Your task to perform on an android device: open app "Yahoo Mail" (install if not already installed) and enter user name: "lawsuit@inbox.com" and password: "pooch" Image 0: 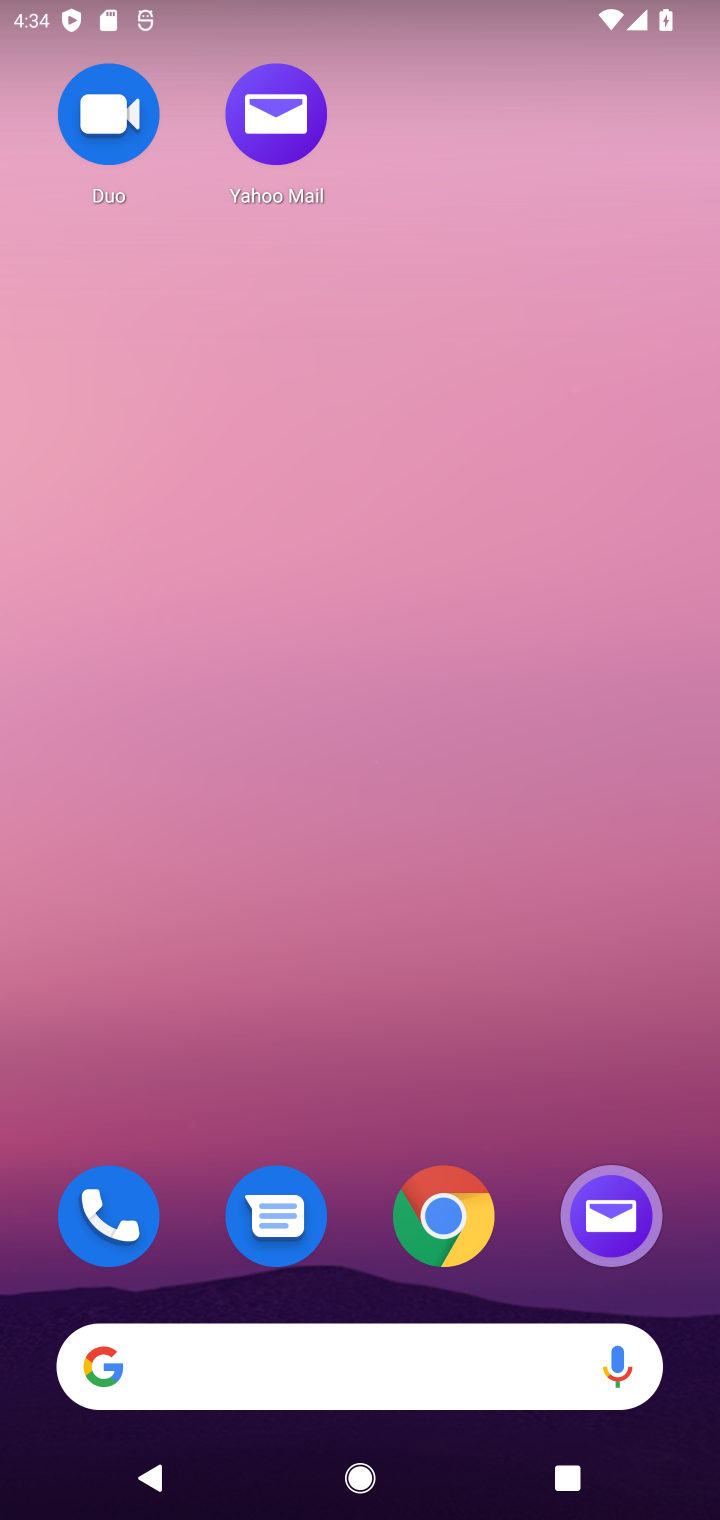
Step 0: drag from (369, 1043) to (475, 227)
Your task to perform on an android device: open app "Yahoo Mail" (install if not already installed) and enter user name: "lawsuit@inbox.com" and password: "pooch" Image 1: 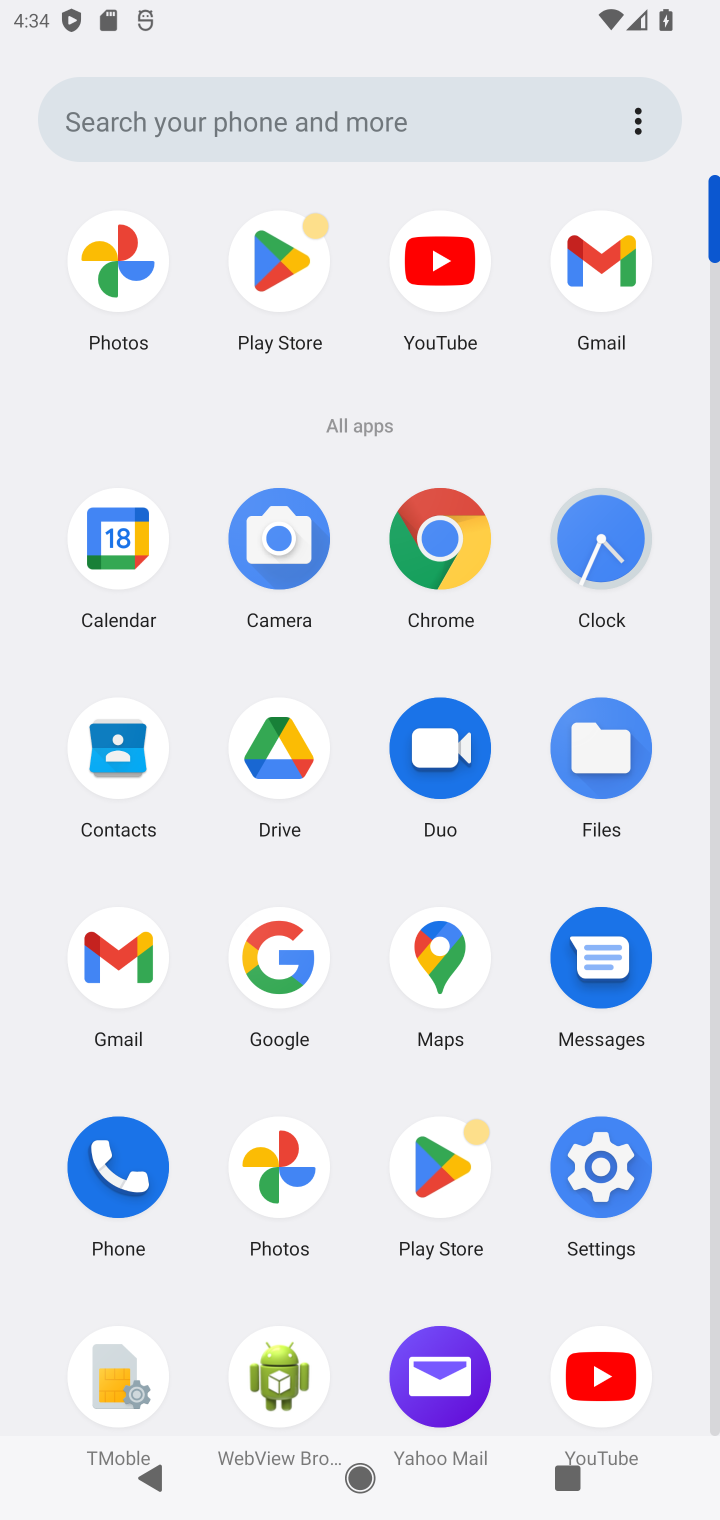
Step 1: click (287, 252)
Your task to perform on an android device: open app "Yahoo Mail" (install if not already installed) and enter user name: "lawsuit@inbox.com" and password: "pooch" Image 2: 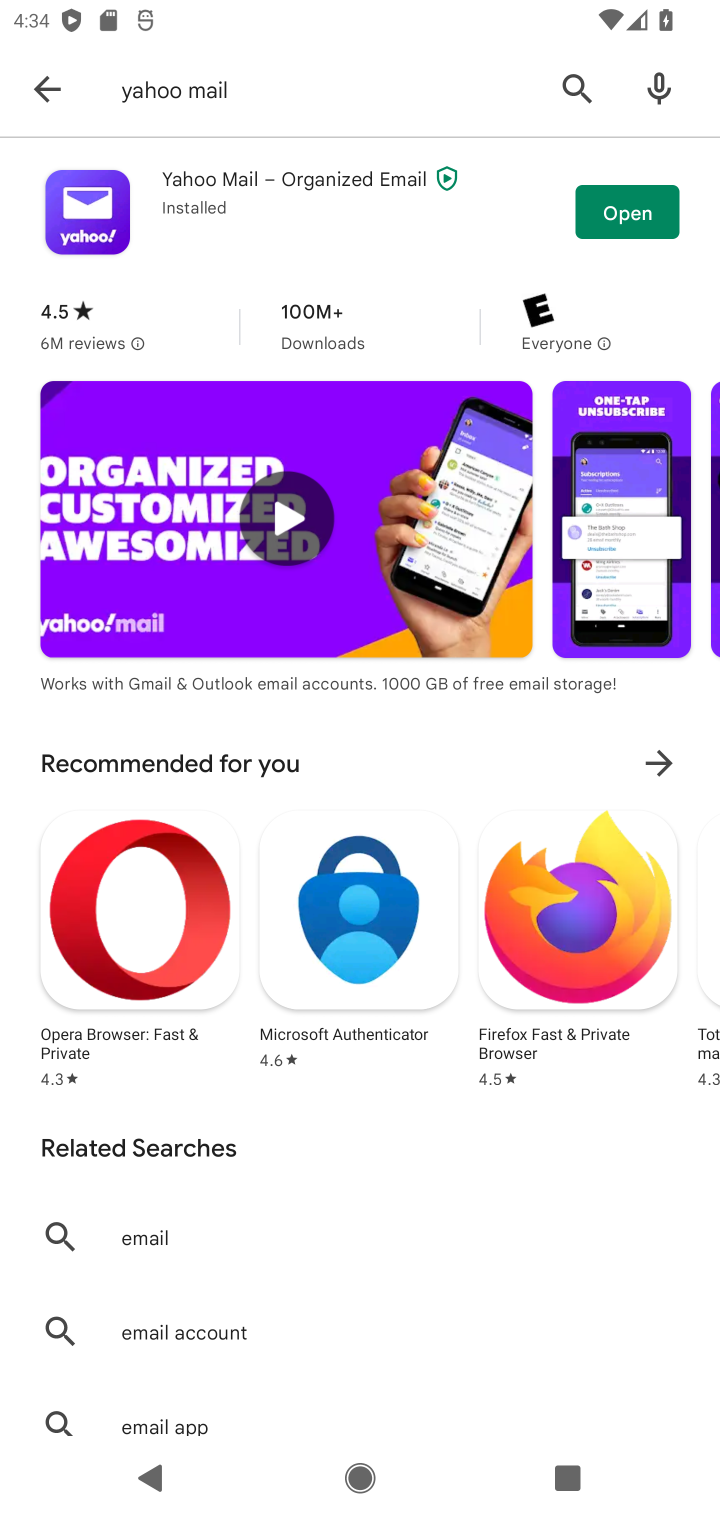
Step 2: click (574, 84)
Your task to perform on an android device: open app "Yahoo Mail" (install if not already installed) and enter user name: "lawsuit@inbox.com" and password: "pooch" Image 3: 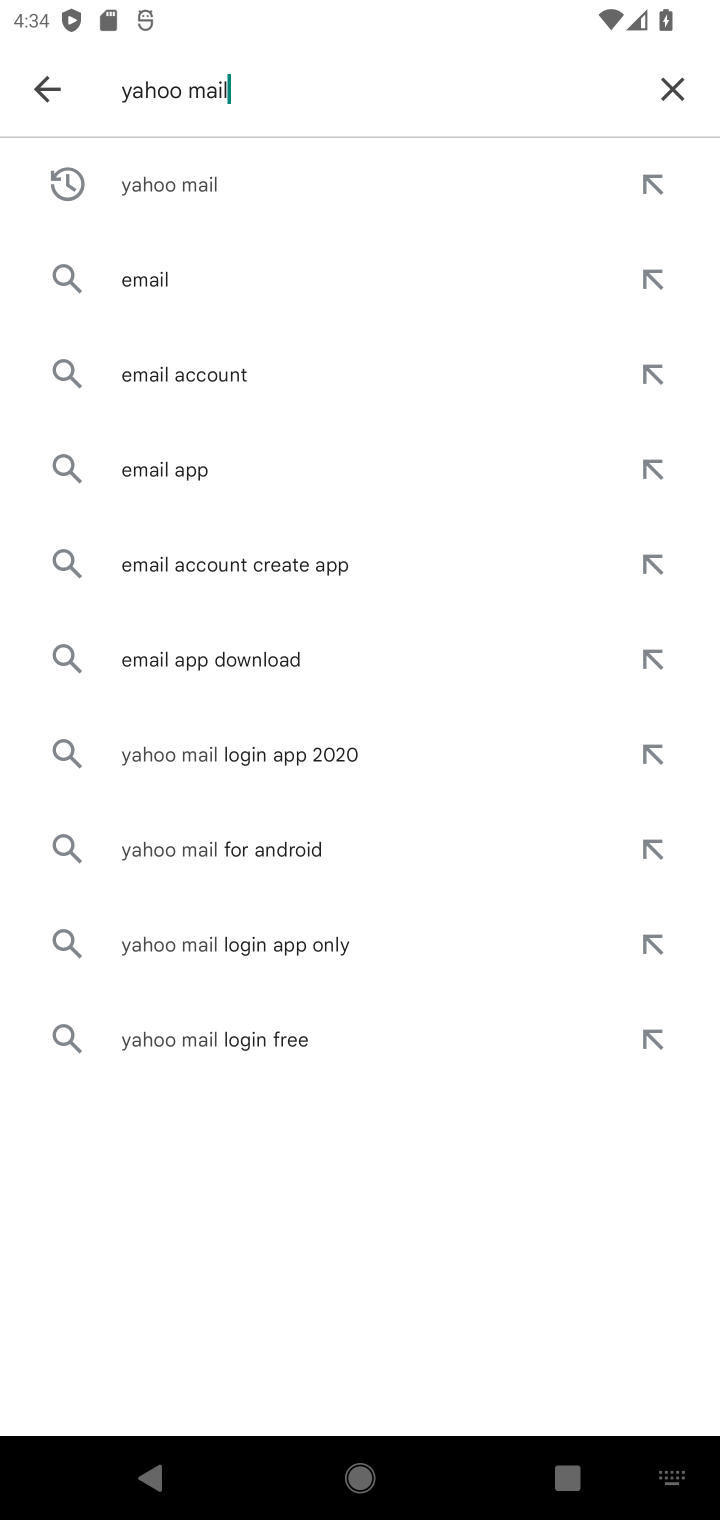
Step 3: click (226, 169)
Your task to perform on an android device: open app "Yahoo Mail" (install if not already installed) and enter user name: "lawsuit@inbox.com" and password: "pooch" Image 4: 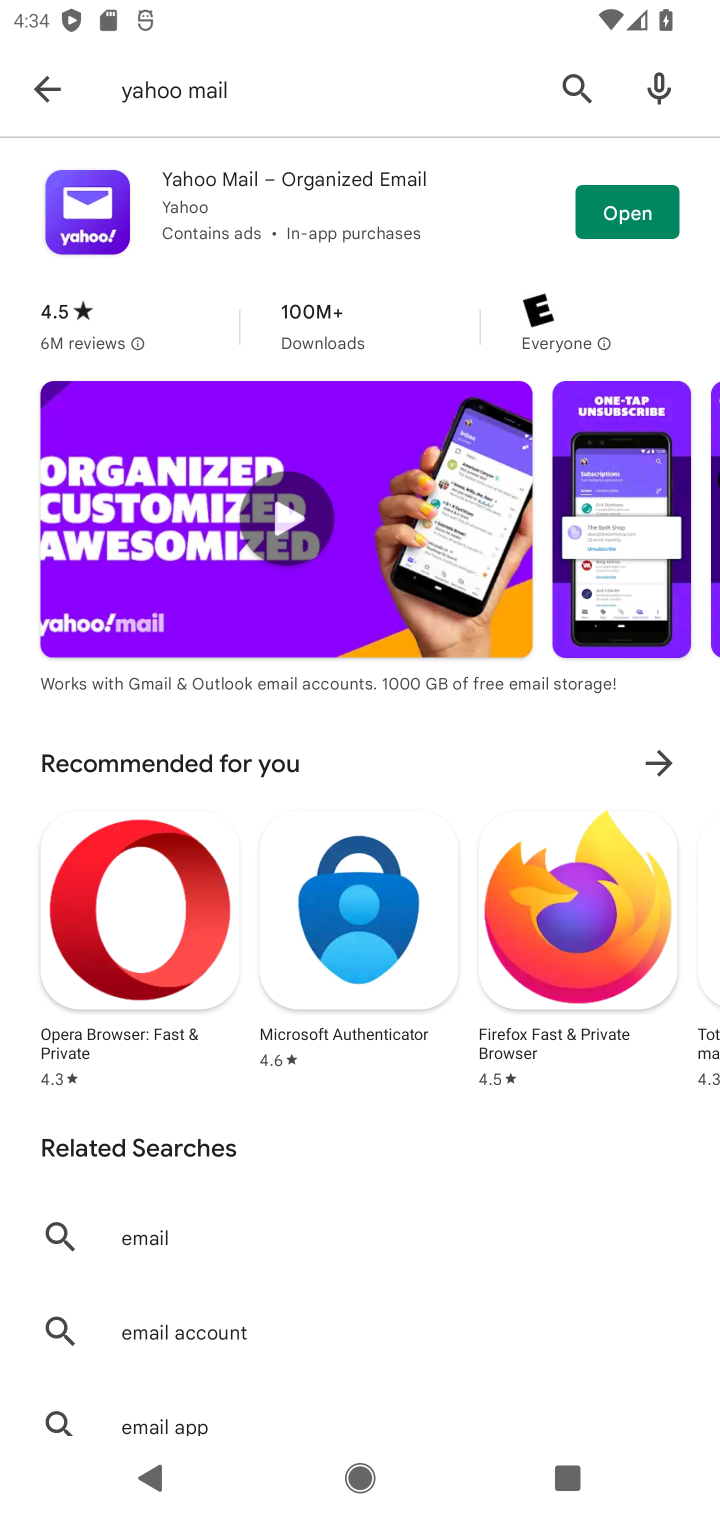
Step 4: click (617, 221)
Your task to perform on an android device: open app "Yahoo Mail" (install if not already installed) and enter user name: "lawsuit@inbox.com" and password: "pooch" Image 5: 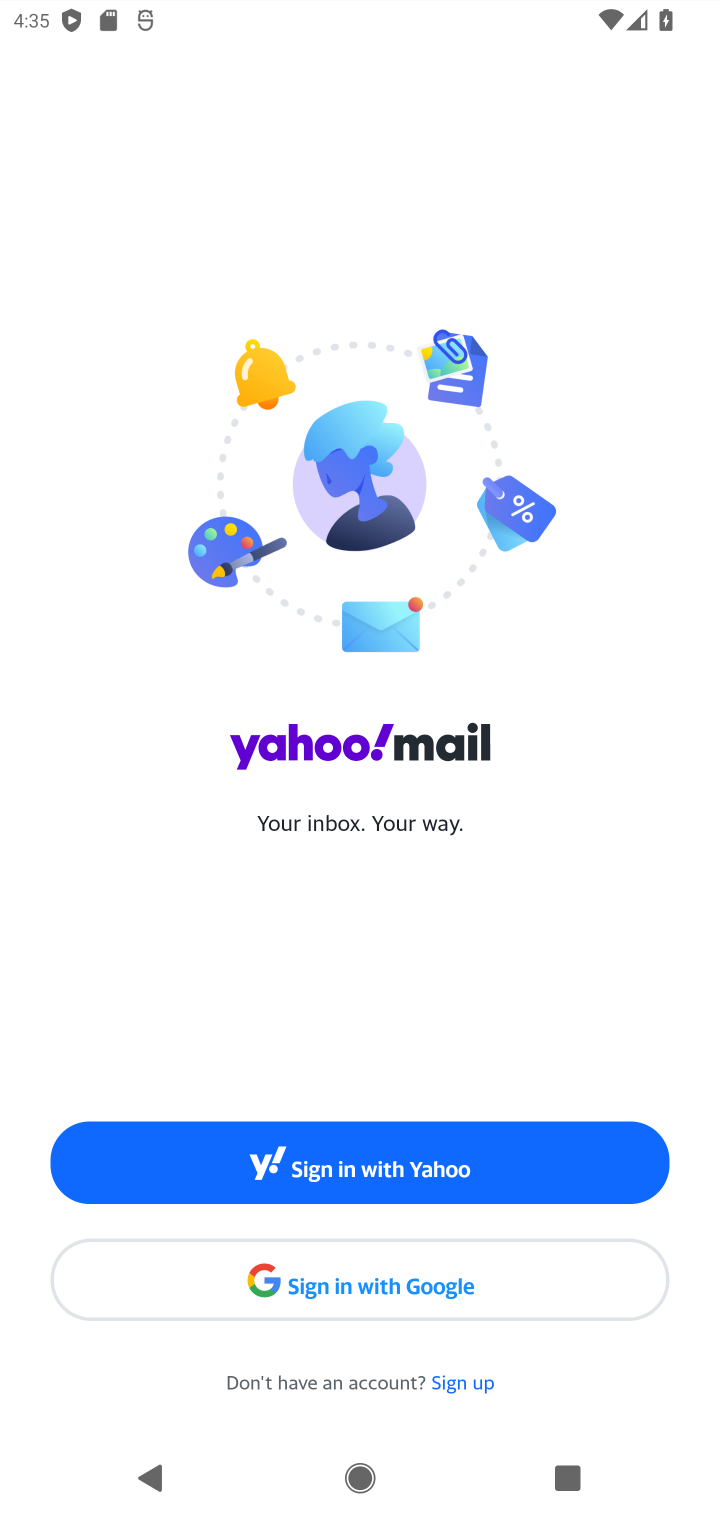
Step 5: click (361, 1173)
Your task to perform on an android device: open app "Yahoo Mail" (install if not already installed) and enter user name: "lawsuit@inbox.com" and password: "pooch" Image 6: 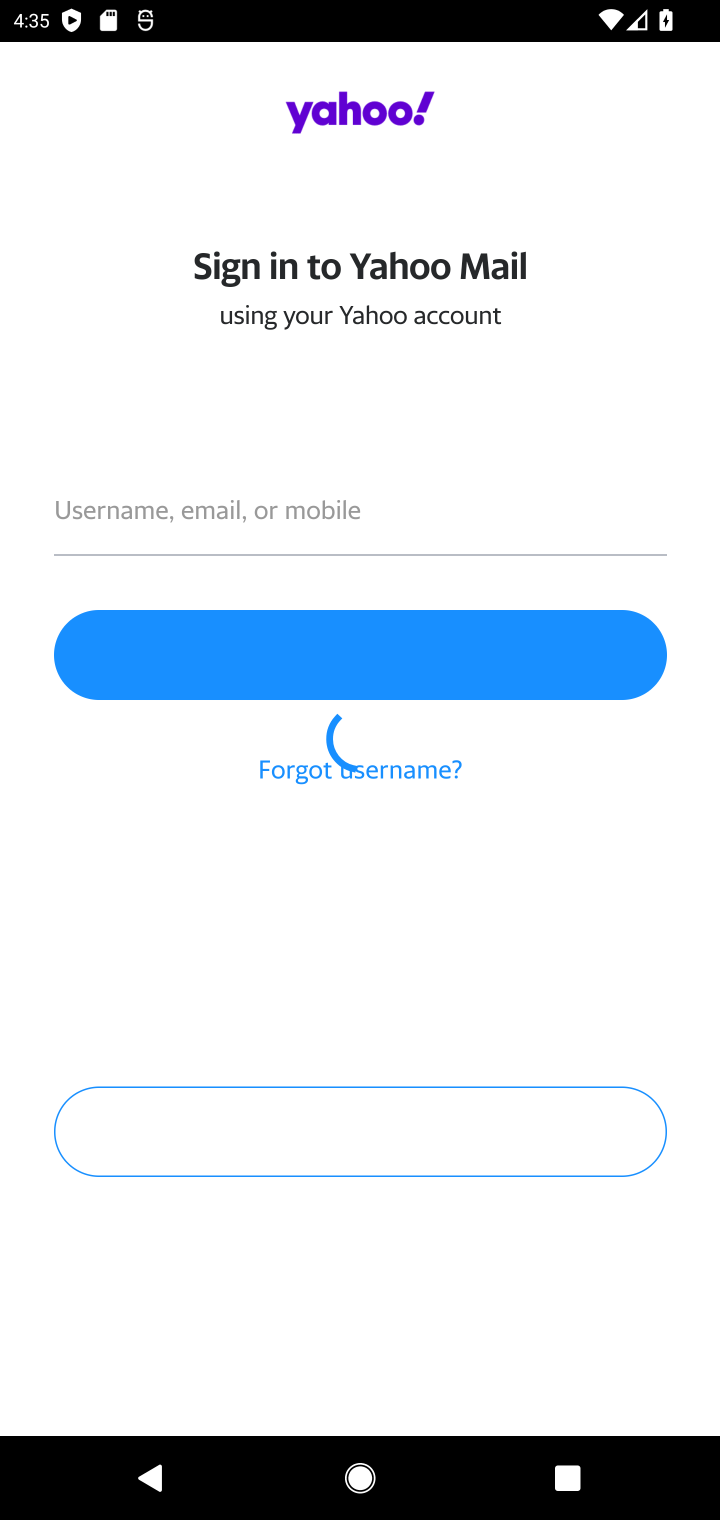
Step 6: click (296, 505)
Your task to perform on an android device: open app "Yahoo Mail" (install if not already installed) and enter user name: "lawsuit@inbox.com" and password: "pooch" Image 7: 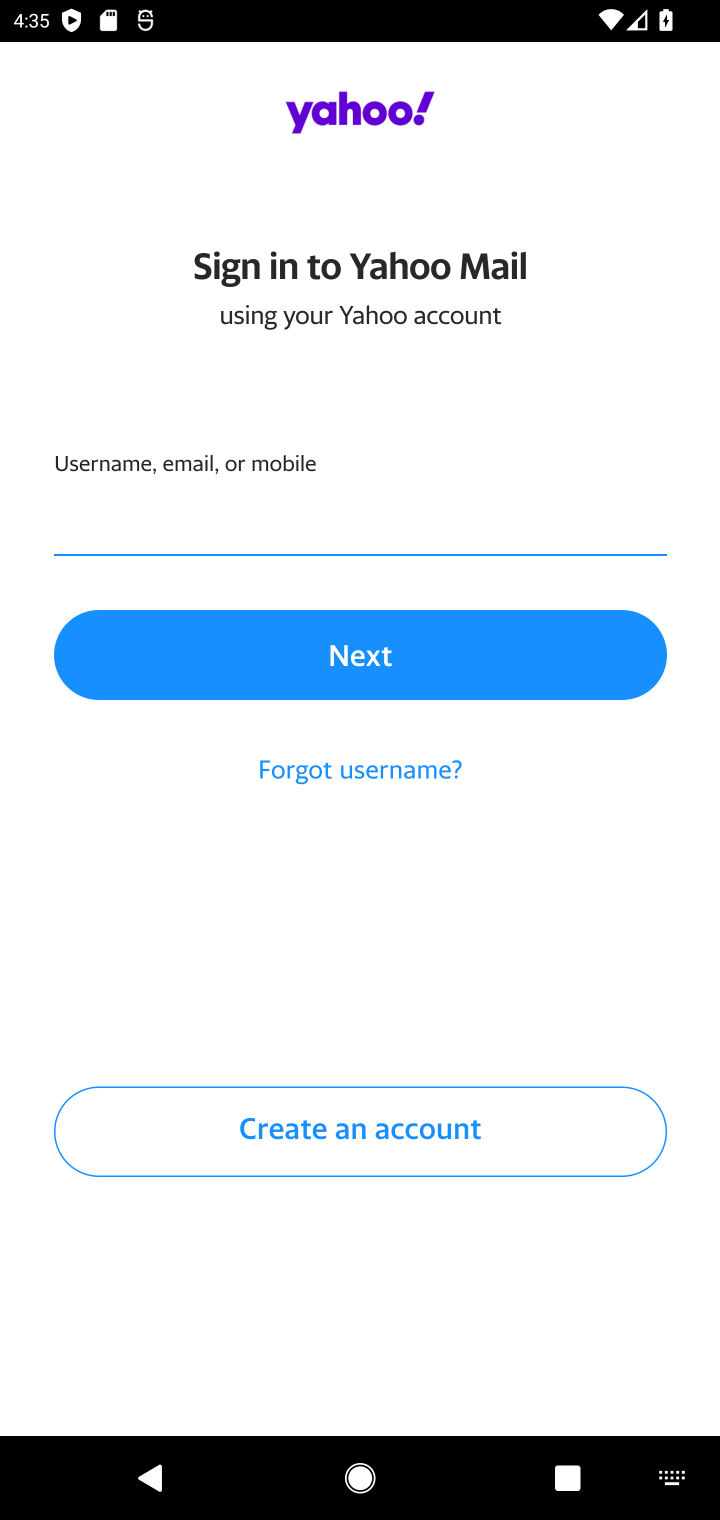
Step 7: type "lawsuit@inbox.com"
Your task to perform on an android device: open app "Yahoo Mail" (install if not already installed) and enter user name: "lawsuit@inbox.com" and password: "pooch" Image 8: 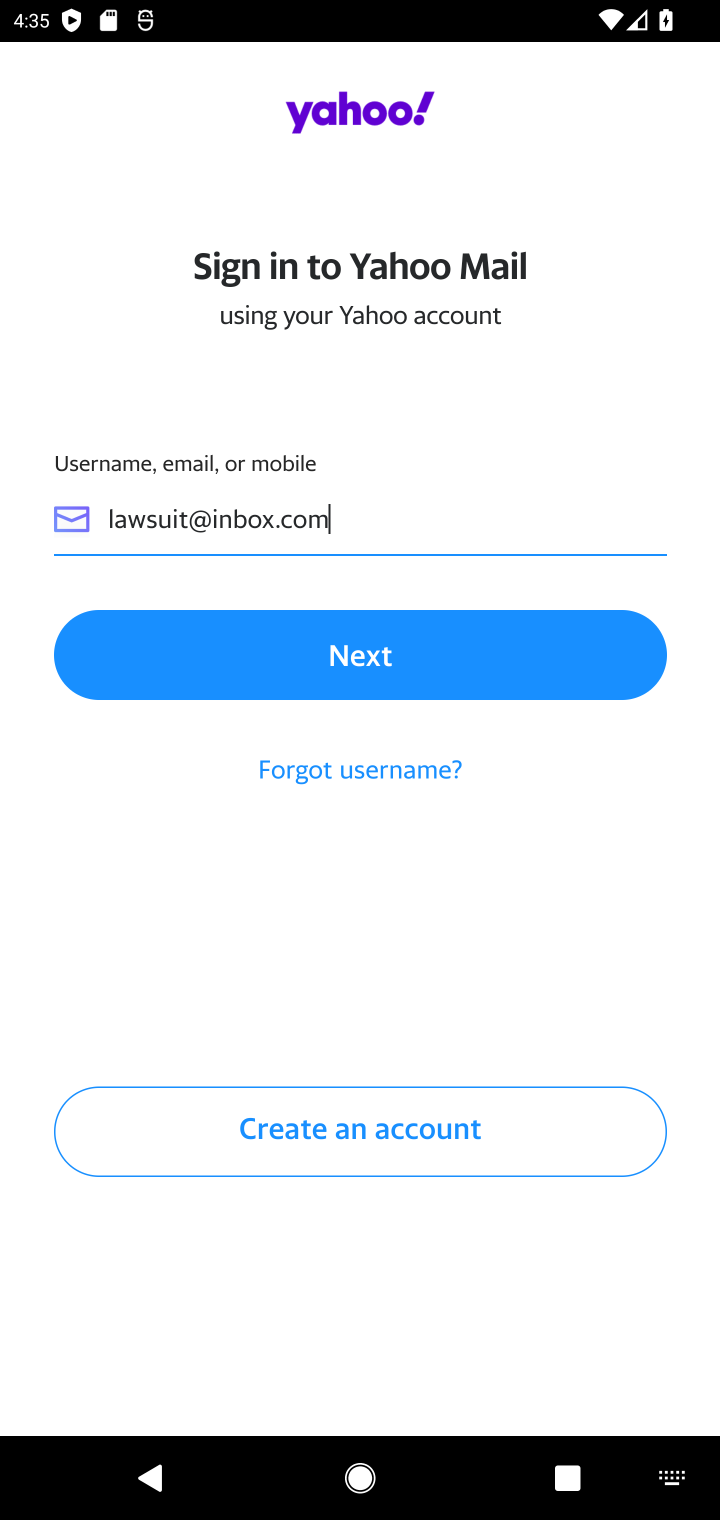
Step 8: click (406, 665)
Your task to perform on an android device: open app "Yahoo Mail" (install if not already installed) and enter user name: "lawsuit@inbox.com" and password: "pooch" Image 9: 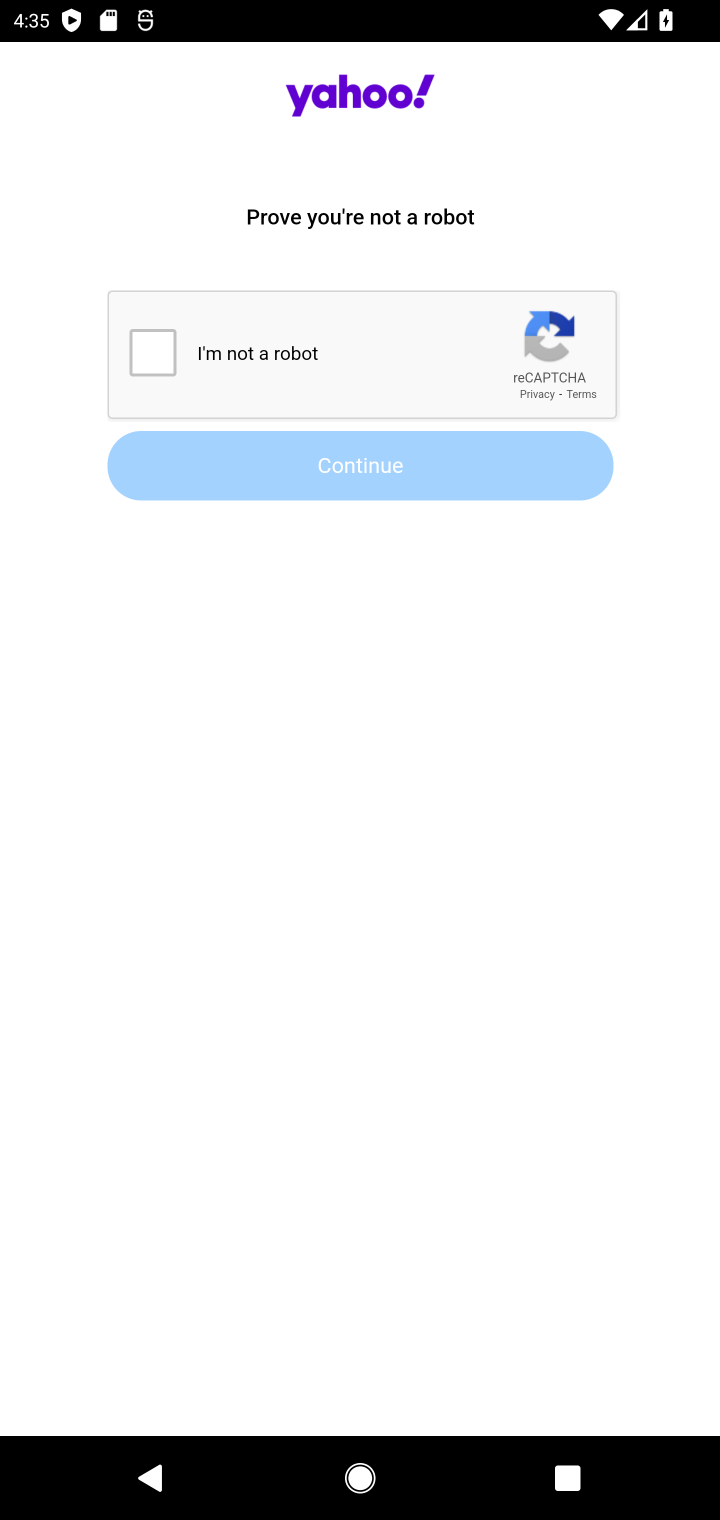
Step 9: click (147, 350)
Your task to perform on an android device: open app "Yahoo Mail" (install if not already installed) and enter user name: "lawsuit@inbox.com" and password: "pooch" Image 10: 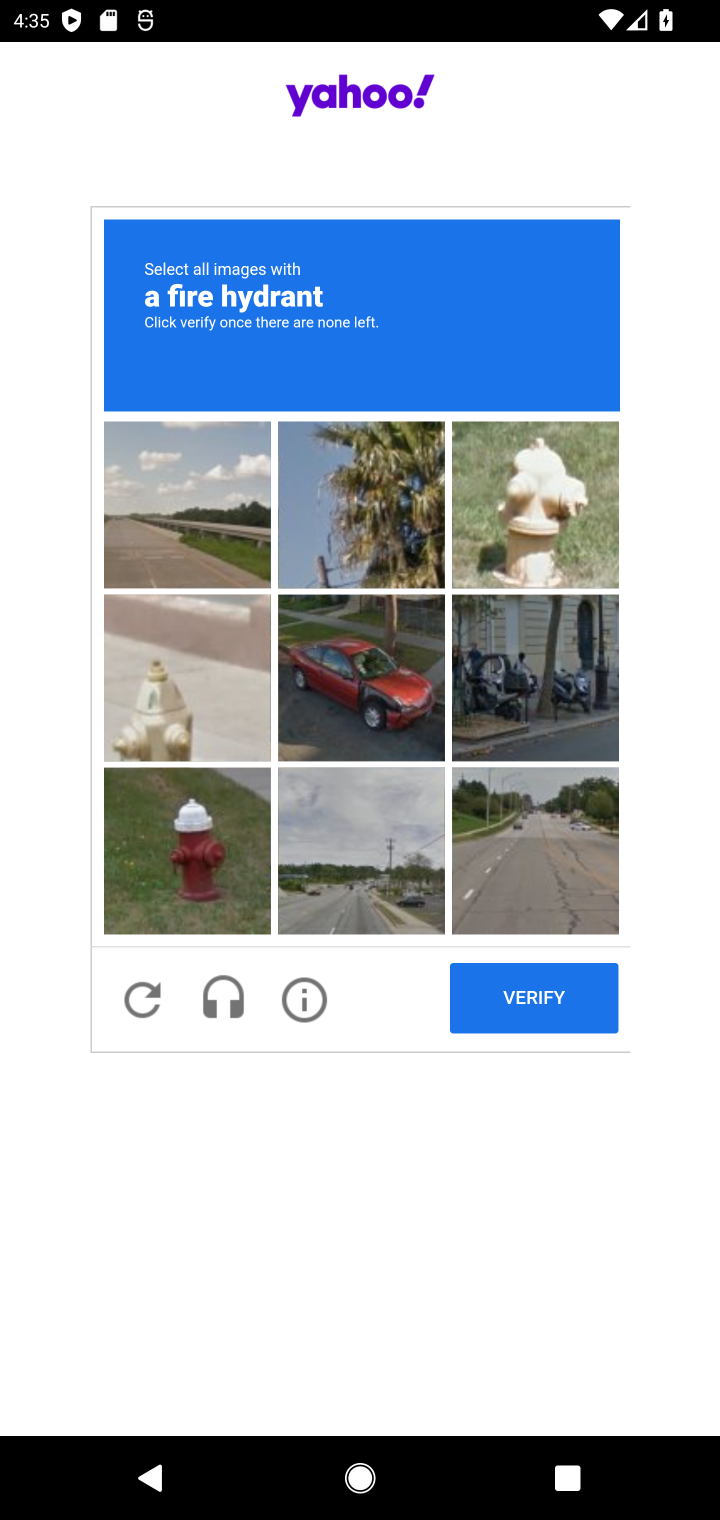
Step 10: task complete